Your task to perform on an android device: Is it going to rain tomorrow? Image 0: 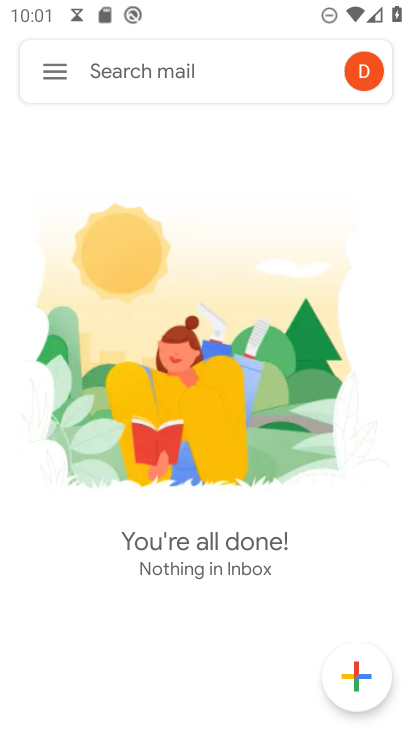
Step 0: press home button
Your task to perform on an android device: Is it going to rain tomorrow? Image 1: 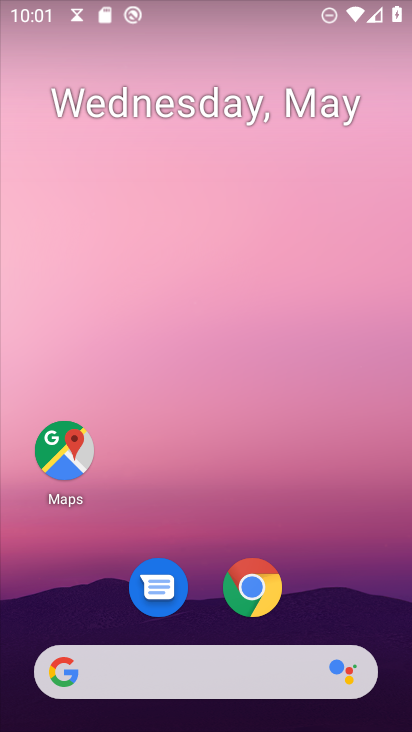
Step 1: drag from (216, 725) to (193, 143)
Your task to perform on an android device: Is it going to rain tomorrow? Image 2: 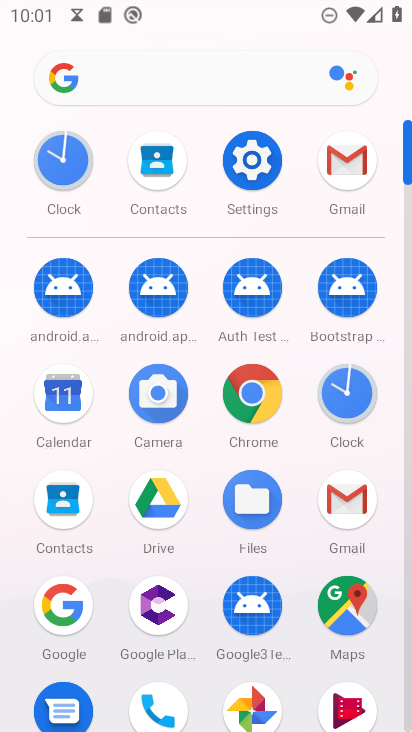
Step 2: click (57, 602)
Your task to perform on an android device: Is it going to rain tomorrow? Image 3: 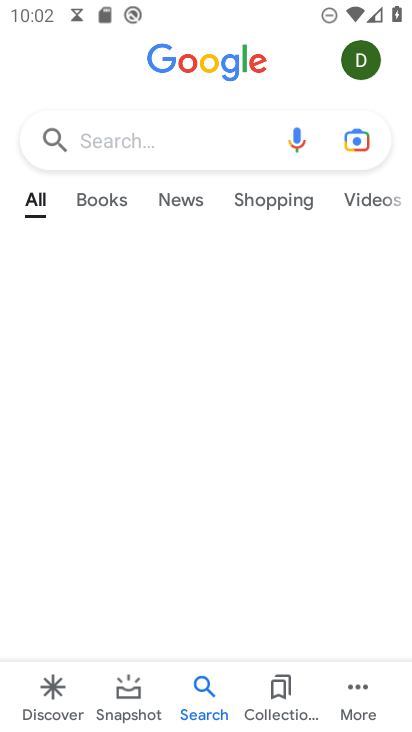
Step 3: click (138, 146)
Your task to perform on an android device: Is it going to rain tomorrow? Image 4: 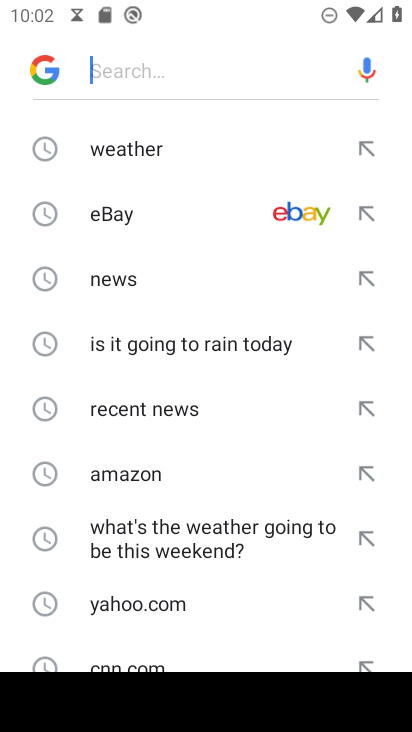
Step 4: click (125, 149)
Your task to perform on an android device: Is it going to rain tomorrow? Image 5: 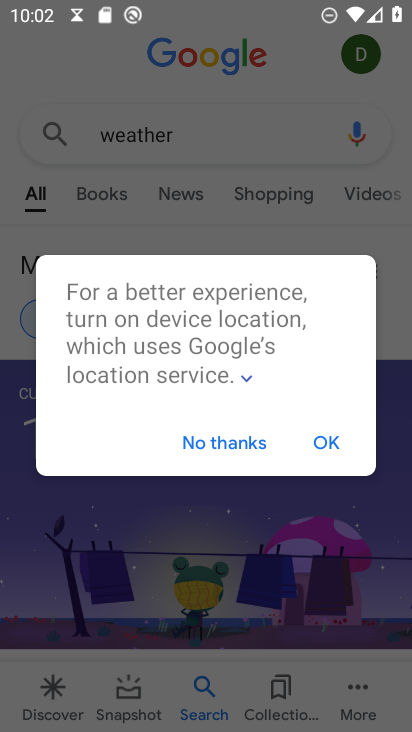
Step 5: click (242, 440)
Your task to perform on an android device: Is it going to rain tomorrow? Image 6: 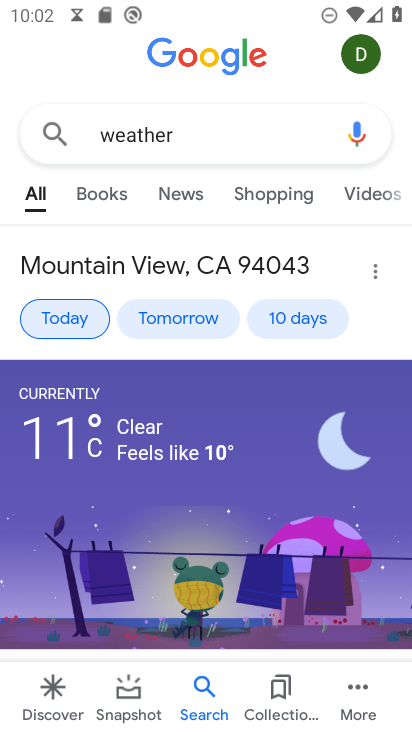
Step 6: click (181, 319)
Your task to perform on an android device: Is it going to rain tomorrow? Image 7: 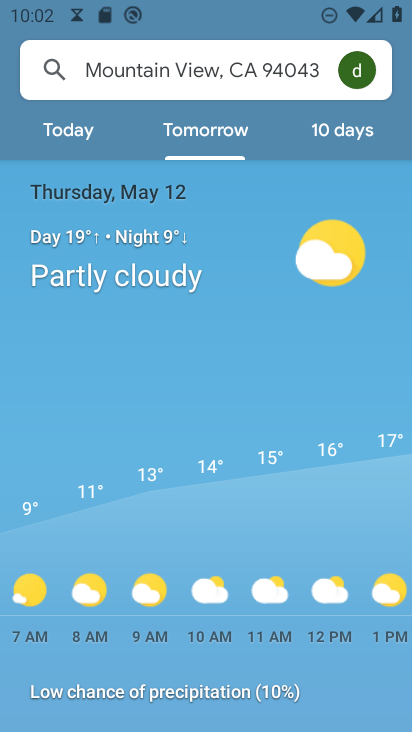
Step 7: task complete